Your task to perform on an android device: Open maps Image 0: 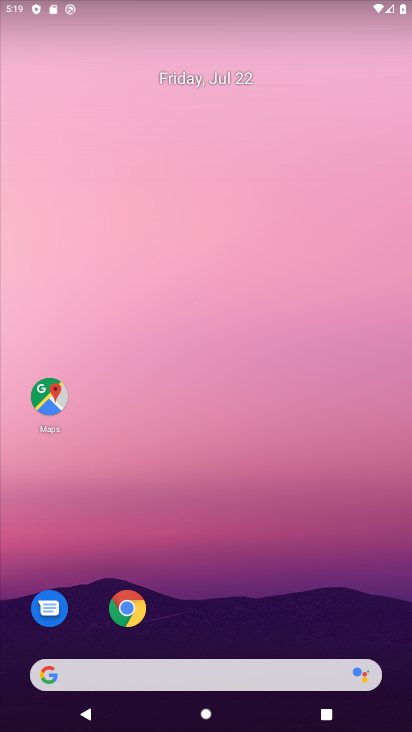
Step 0: click (60, 387)
Your task to perform on an android device: Open maps Image 1: 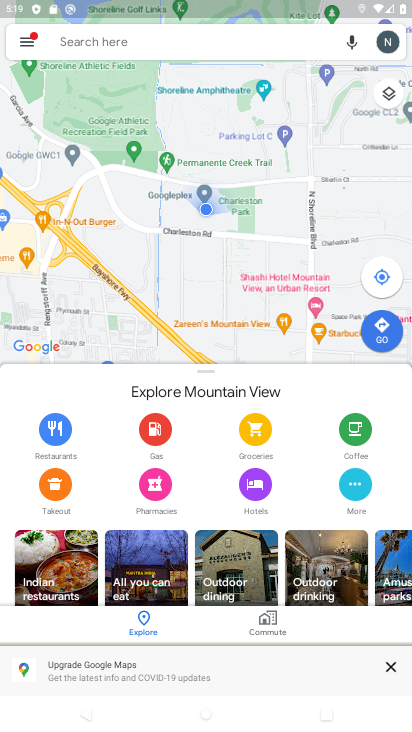
Step 1: task complete